Your task to perform on an android device: allow notifications from all sites in the chrome app Image 0: 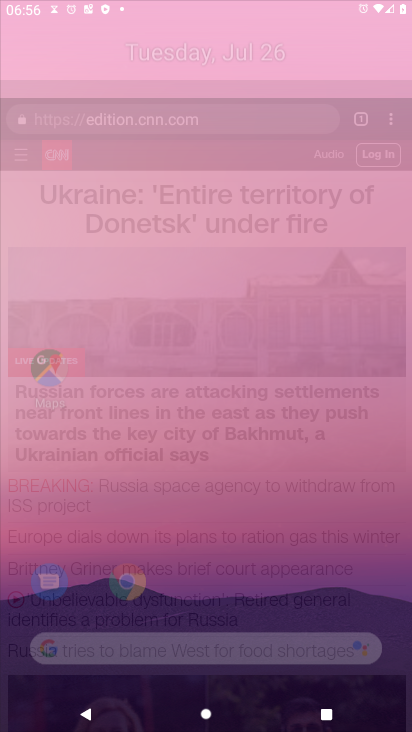
Step 0: press home button
Your task to perform on an android device: allow notifications from all sites in the chrome app Image 1: 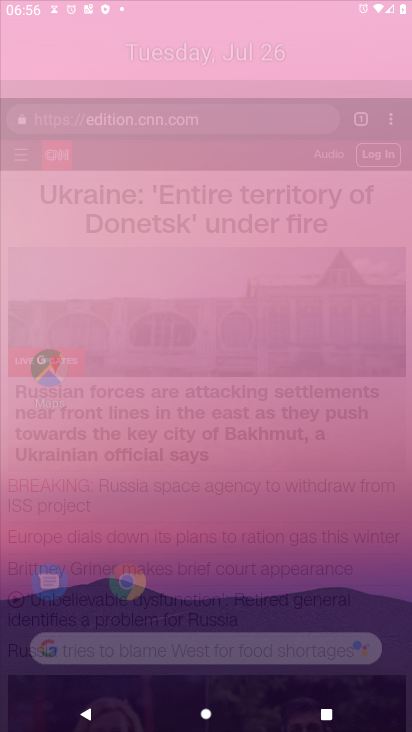
Step 1: click (310, 163)
Your task to perform on an android device: allow notifications from all sites in the chrome app Image 2: 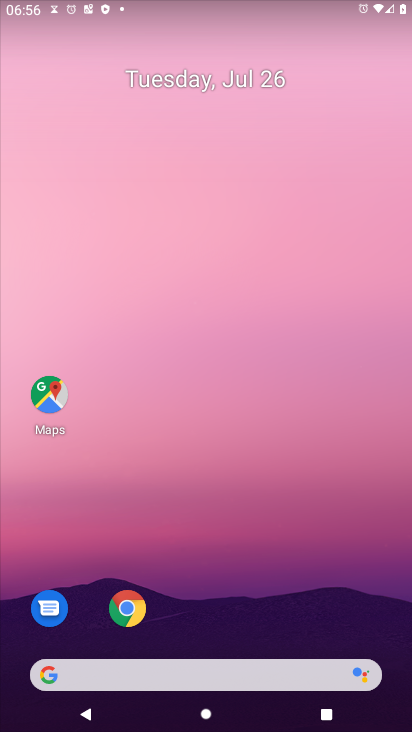
Step 2: drag from (240, 623) to (280, 126)
Your task to perform on an android device: allow notifications from all sites in the chrome app Image 3: 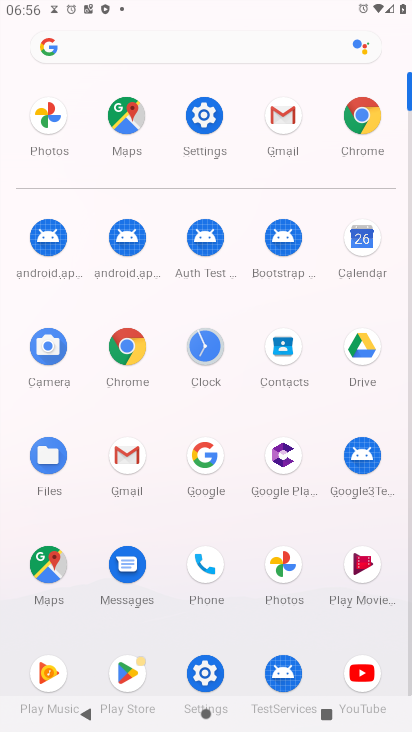
Step 3: click (369, 113)
Your task to perform on an android device: allow notifications from all sites in the chrome app Image 4: 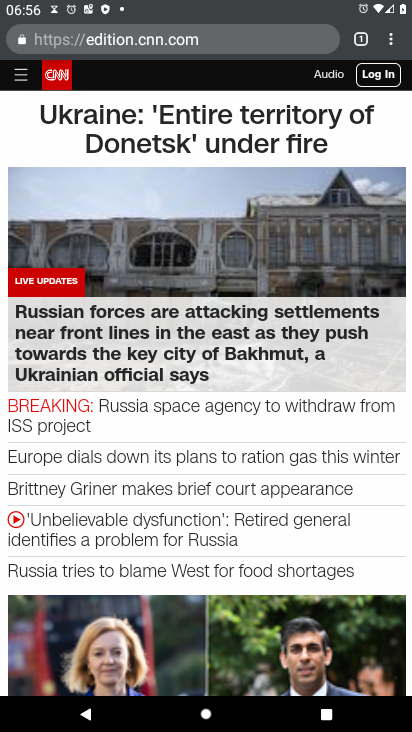
Step 4: drag from (384, 46) to (284, 363)
Your task to perform on an android device: allow notifications from all sites in the chrome app Image 5: 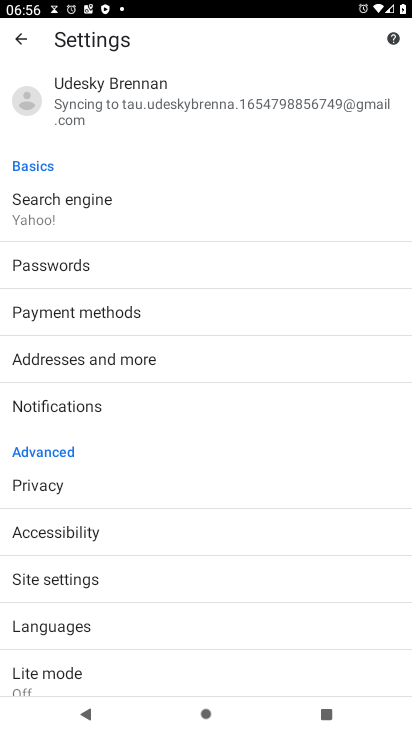
Step 5: click (34, 561)
Your task to perform on an android device: allow notifications from all sites in the chrome app Image 6: 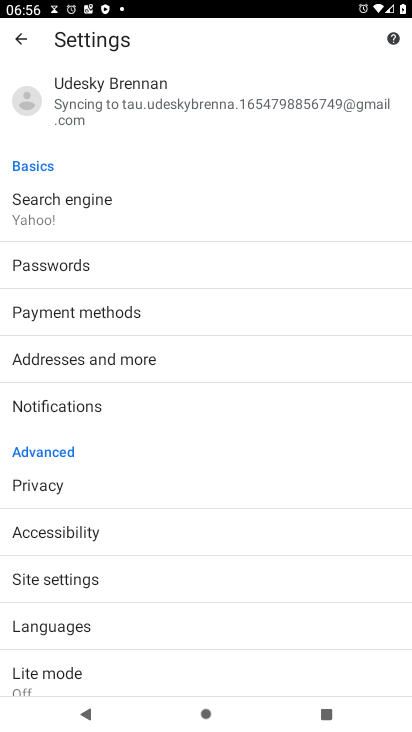
Step 6: click (51, 584)
Your task to perform on an android device: allow notifications from all sites in the chrome app Image 7: 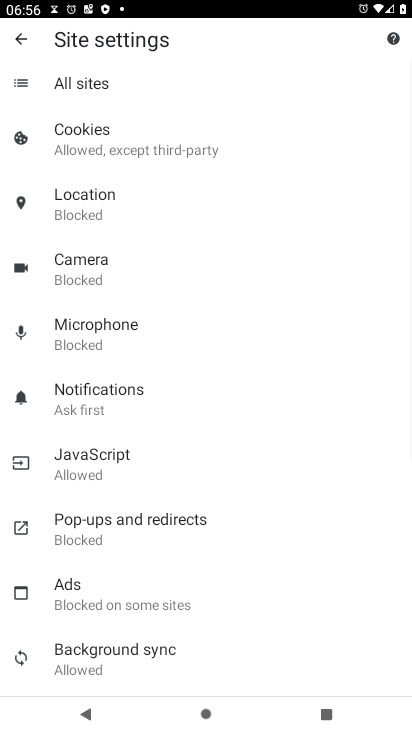
Step 7: click (90, 396)
Your task to perform on an android device: allow notifications from all sites in the chrome app Image 8: 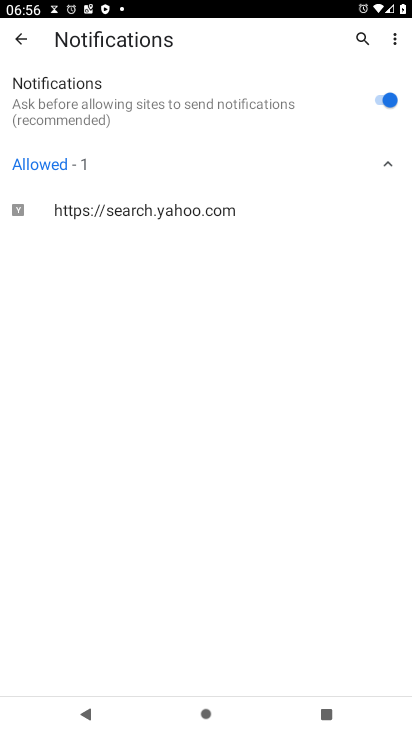
Step 8: task complete